Your task to perform on an android device: Empty the shopping cart on target. Image 0: 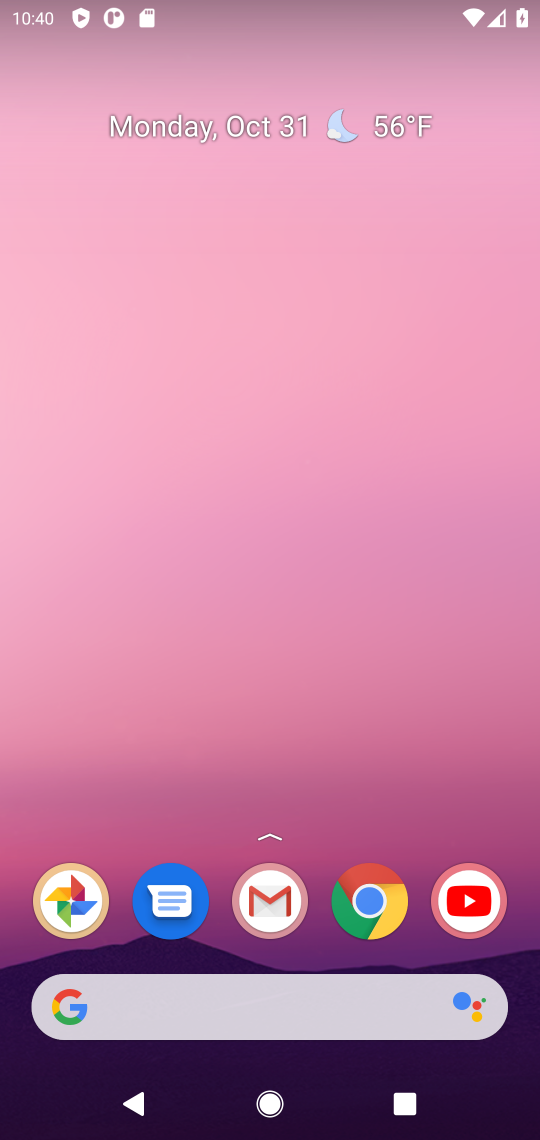
Step 0: drag from (138, 857) to (201, 379)
Your task to perform on an android device: Empty the shopping cart on target. Image 1: 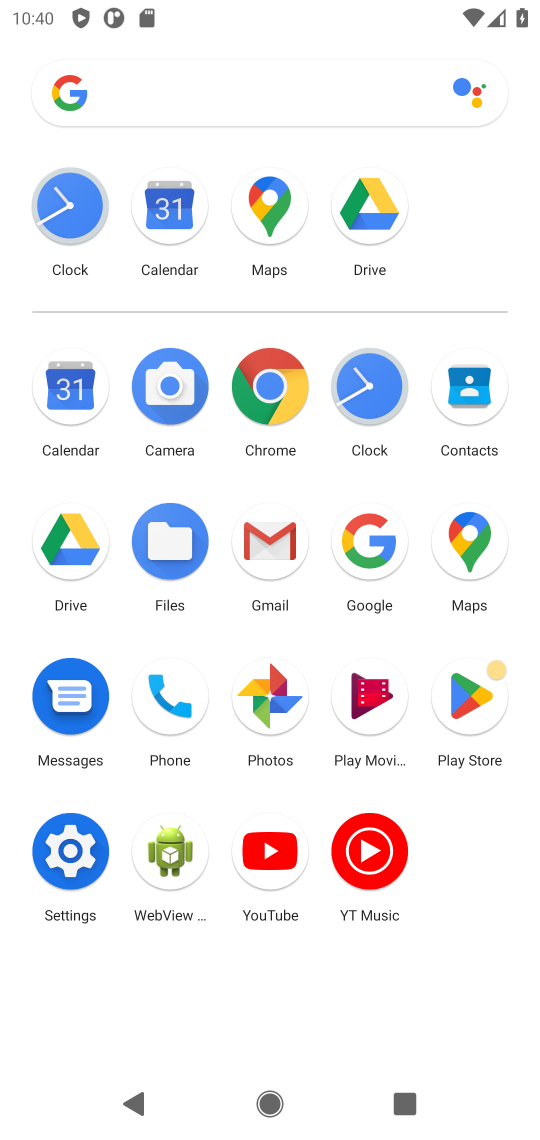
Step 1: click (372, 519)
Your task to perform on an android device: Empty the shopping cart on target. Image 2: 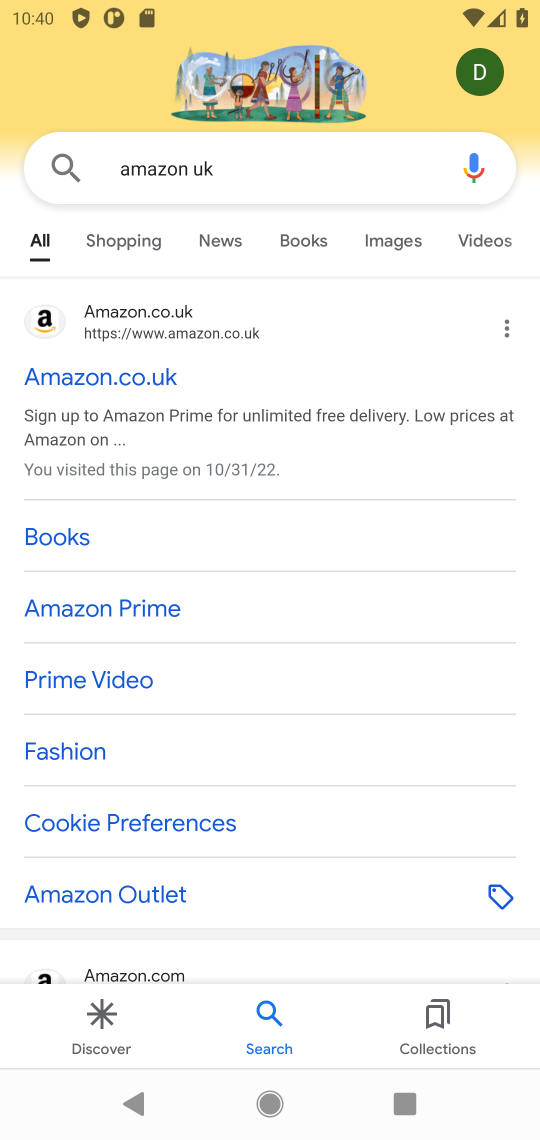
Step 2: click (260, 165)
Your task to perform on an android device: Empty the shopping cart on target. Image 3: 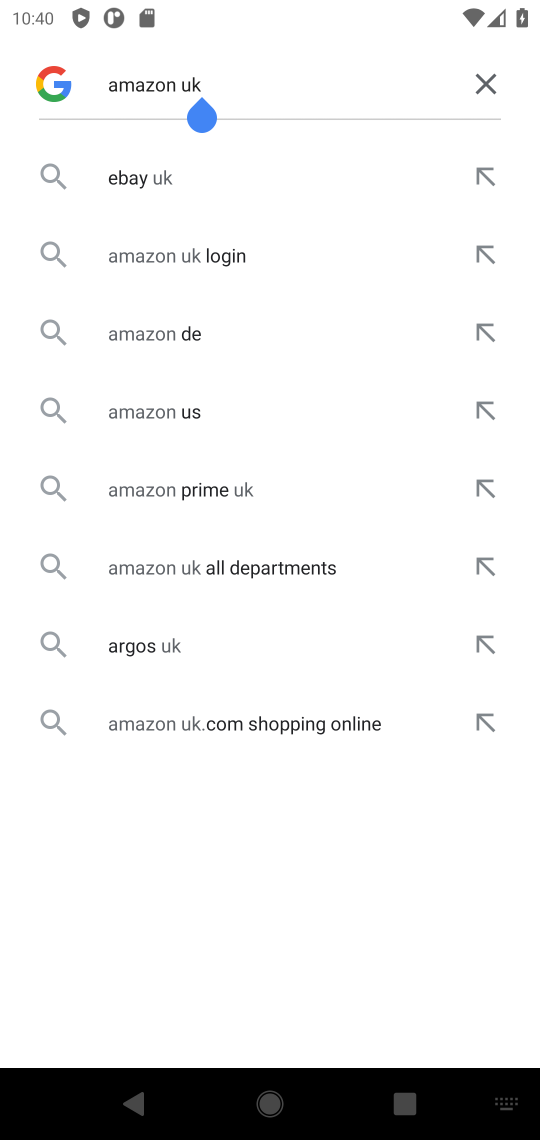
Step 3: click (486, 77)
Your task to perform on an android device: Empty the shopping cart on target. Image 4: 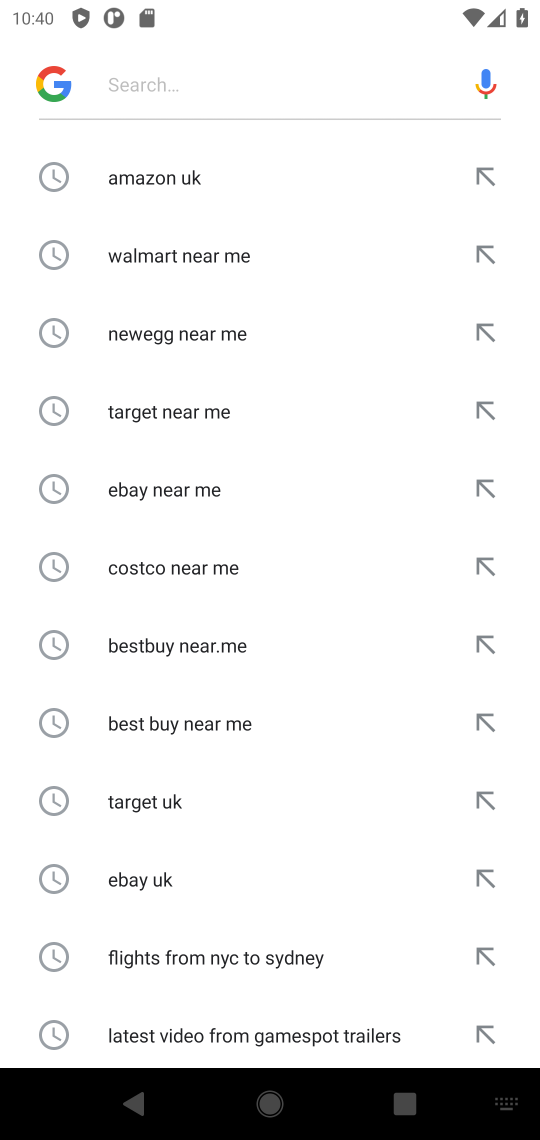
Step 4: click (138, 805)
Your task to perform on an android device: Empty the shopping cart on target. Image 5: 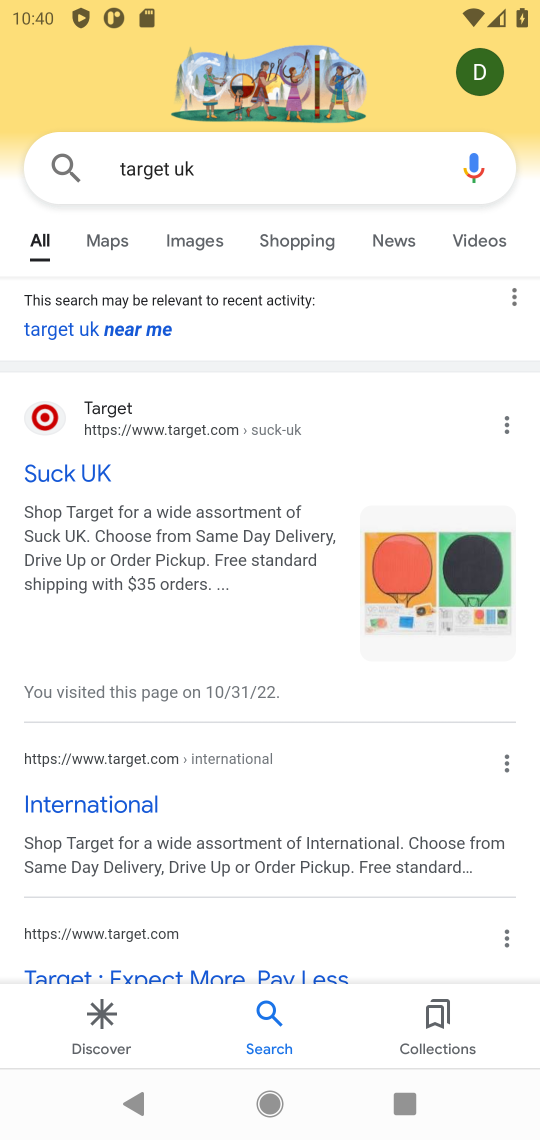
Step 5: click (40, 416)
Your task to perform on an android device: Empty the shopping cart on target. Image 6: 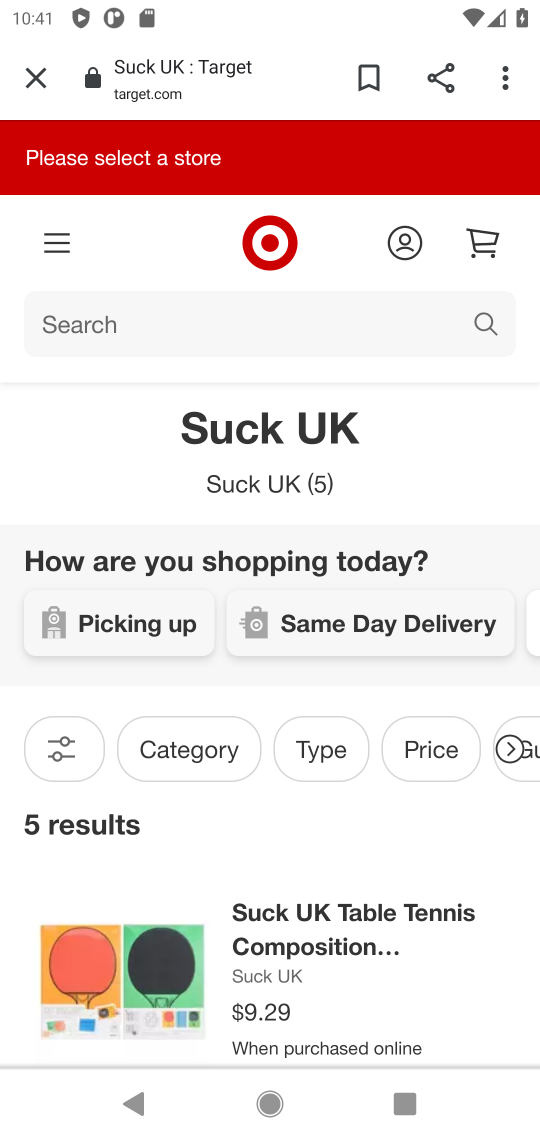
Step 6: click (487, 239)
Your task to perform on an android device: Empty the shopping cart on target. Image 7: 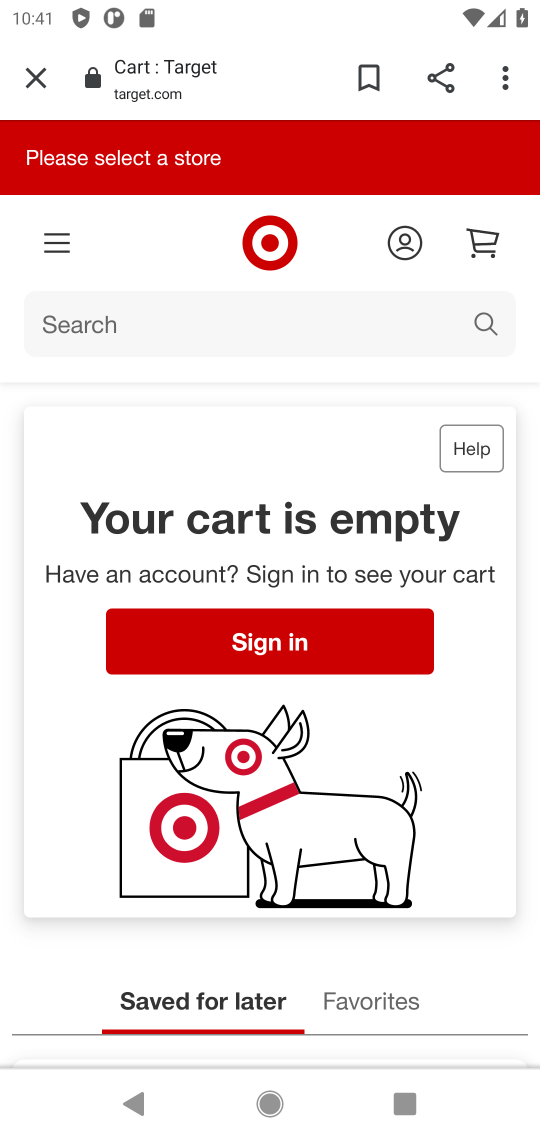
Step 7: task complete